Your task to perform on an android device: Open maps Image 0: 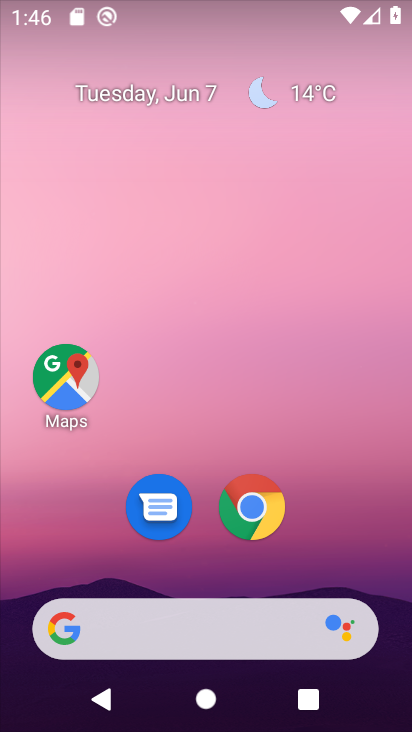
Step 0: click (72, 374)
Your task to perform on an android device: Open maps Image 1: 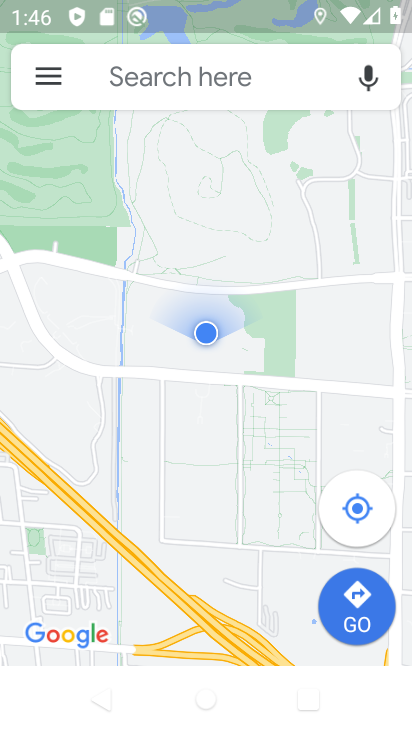
Step 1: task complete